Your task to perform on an android device: Open the map Image 0: 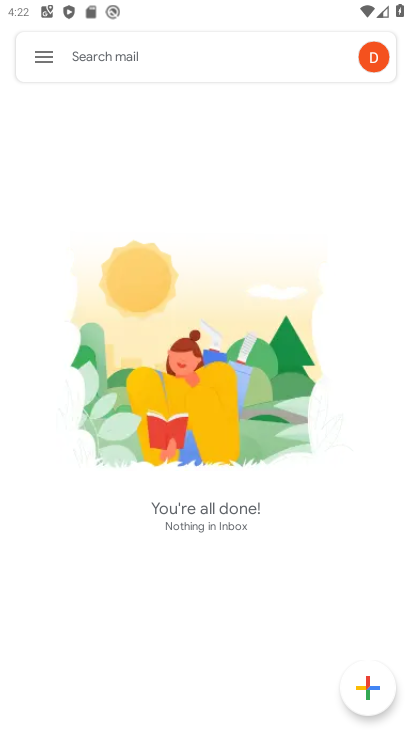
Step 0: press home button
Your task to perform on an android device: Open the map Image 1: 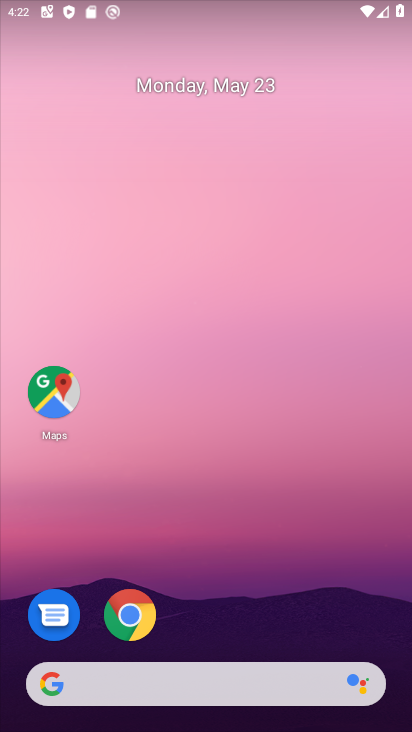
Step 1: click (41, 362)
Your task to perform on an android device: Open the map Image 2: 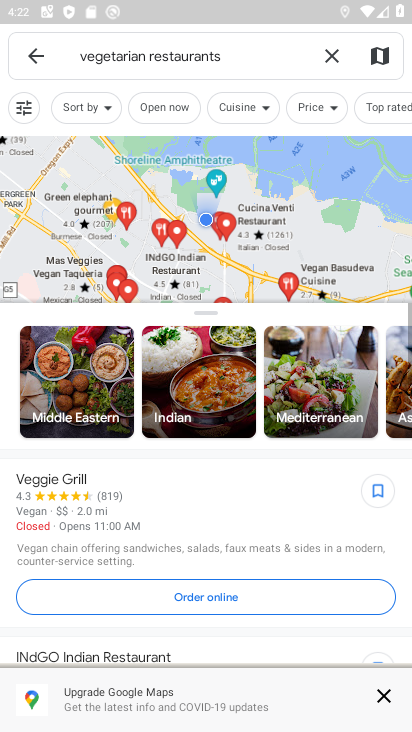
Step 2: task complete